Your task to perform on an android device: Open sound settings Image 0: 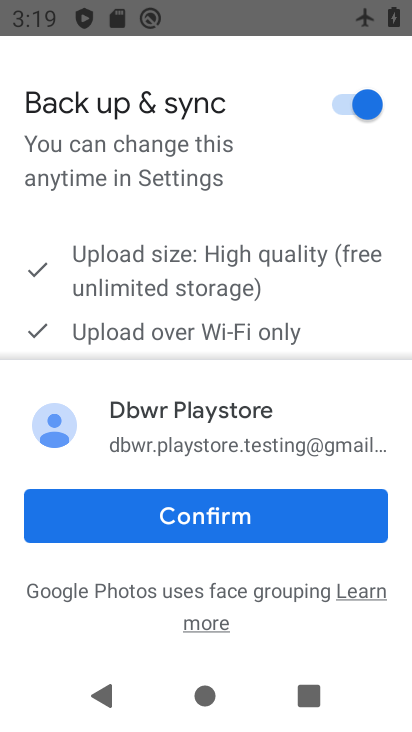
Step 0: press home button
Your task to perform on an android device: Open sound settings Image 1: 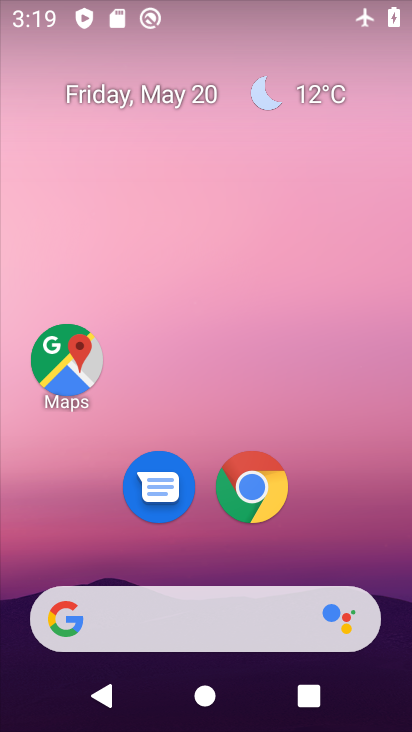
Step 1: drag from (321, 468) to (277, 16)
Your task to perform on an android device: Open sound settings Image 2: 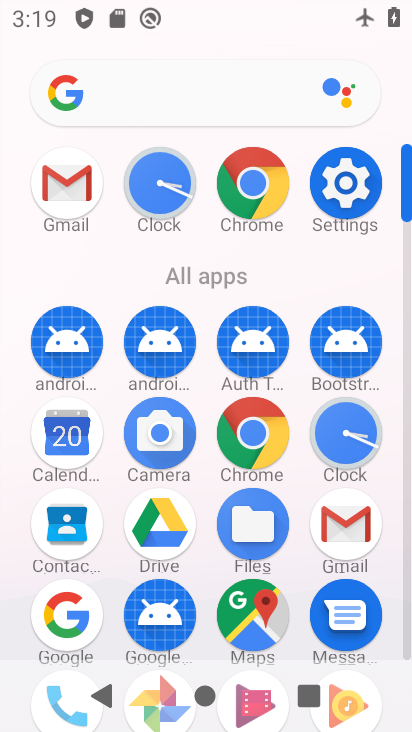
Step 2: click (345, 211)
Your task to perform on an android device: Open sound settings Image 3: 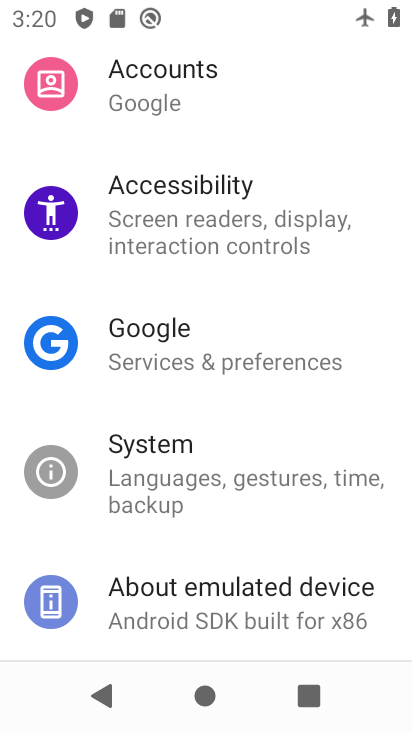
Step 3: drag from (226, 192) to (216, 493)
Your task to perform on an android device: Open sound settings Image 4: 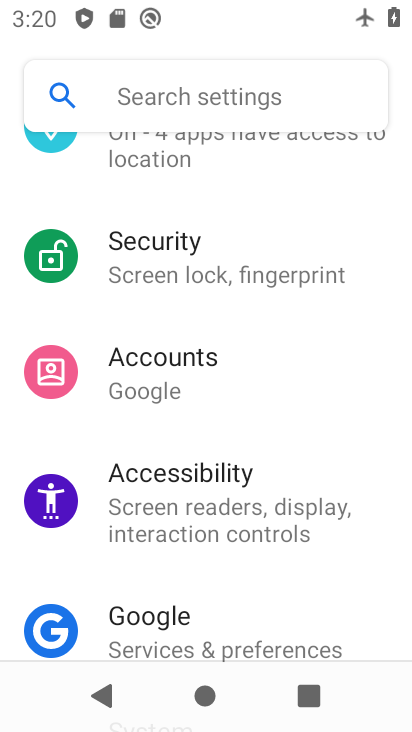
Step 4: drag from (203, 246) to (201, 532)
Your task to perform on an android device: Open sound settings Image 5: 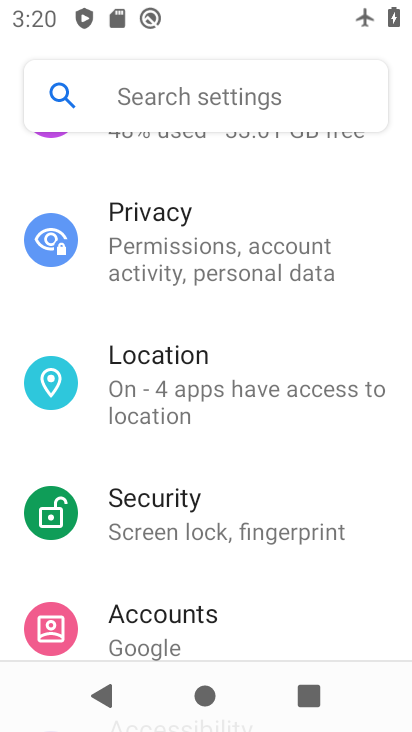
Step 5: drag from (220, 337) to (192, 493)
Your task to perform on an android device: Open sound settings Image 6: 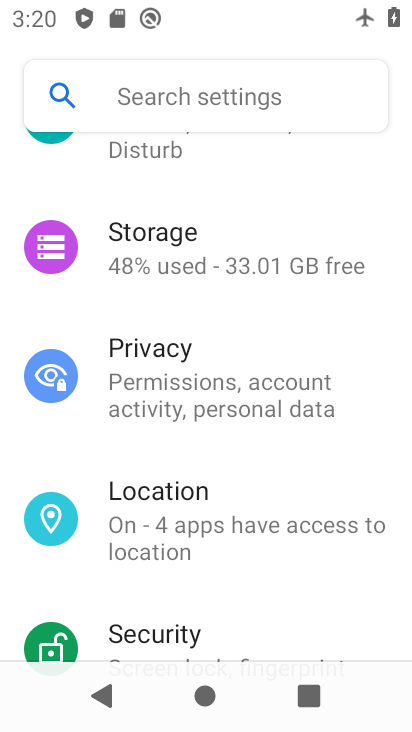
Step 6: drag from (158, 264) to (157, 431)
Your task to perform on an android device: Open sound settings Image 7: 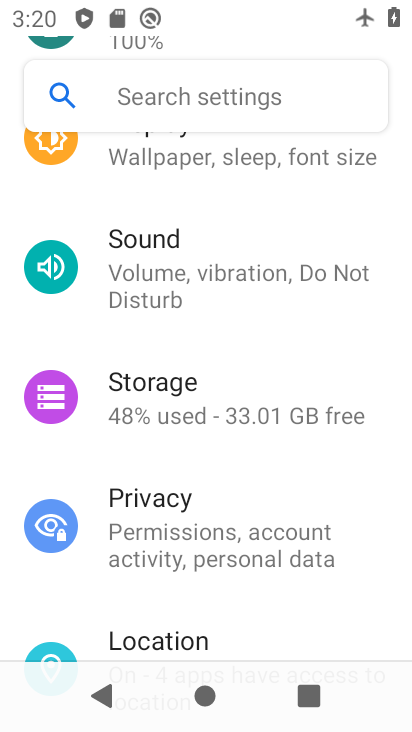
Step 7: click (168, 296)
Your task to perform on an android device: Open sound settings Image 8: 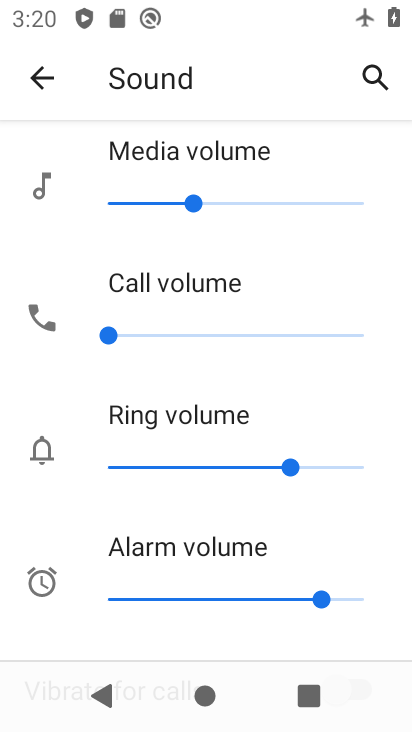
Step 8: task complete